Your task to perform on an android device: Open display settings Image 0: 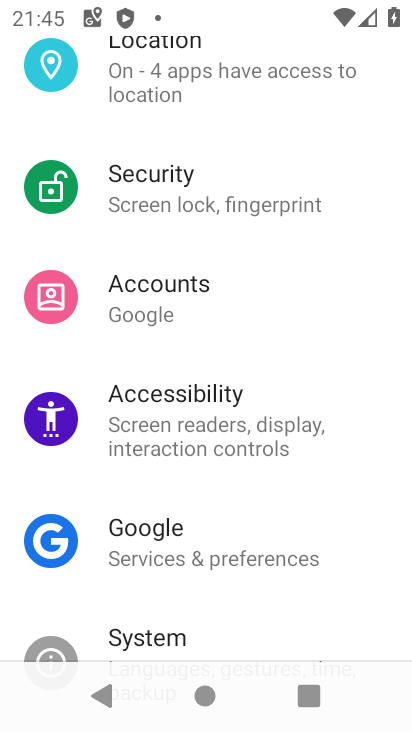
Step 0: drag from (218, 207) to (238, 643)
Your task to perform on an android device: Open display settings Image 1: 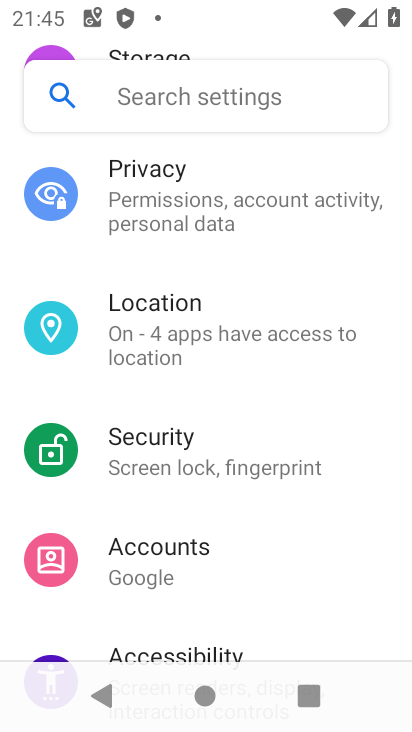
Step 1: drag from (249, 323) to (246, 513)
Your task to perform on an android device: Open display settings Image 2: 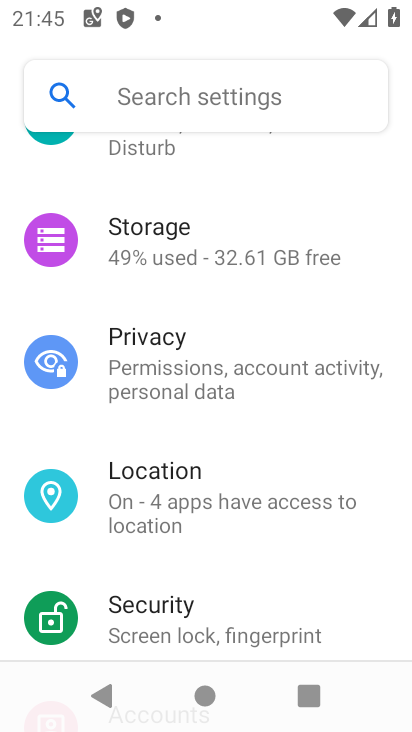
Step 2: drag from (248, 250) to (229, 701)
Your task to perform on an android device: Open display settings Image 3: 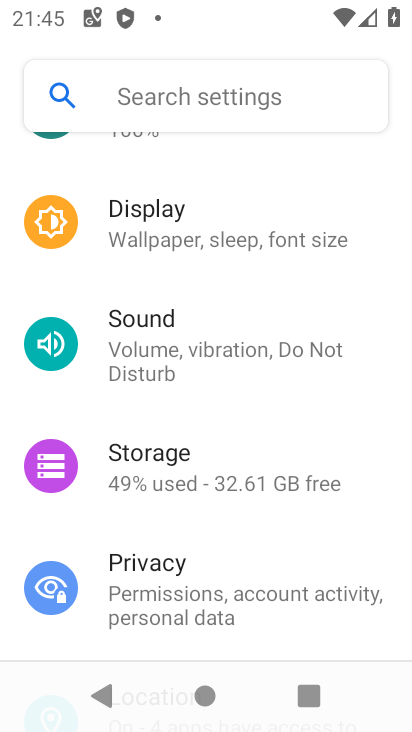
Step 3: drag from (184, 197) to (194, 372)
Your task to perform on an android device: Open display settings Image 4: 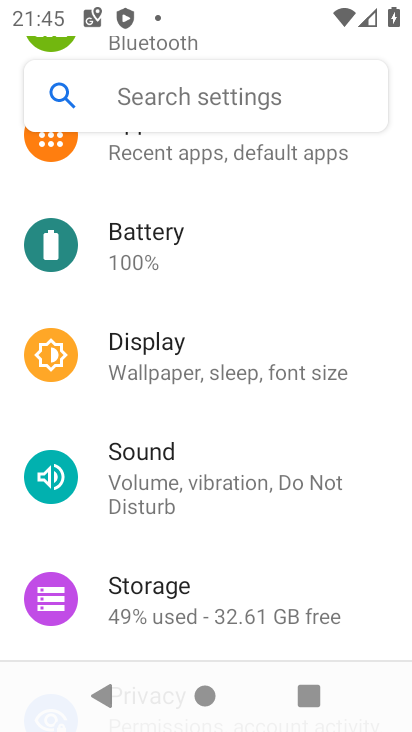
Step 4: click (185, 359)
Your task to perform on an android device: Open display settings Image 5: 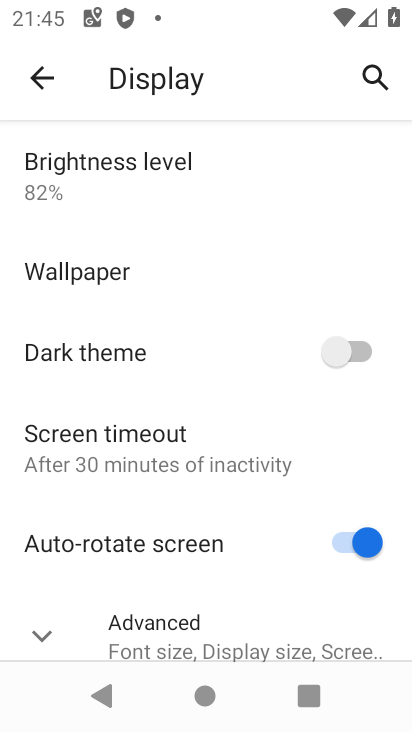
Step 5: task complete